Your task to perform on an android device: toggle priority inbox in the gmail app Image 0: 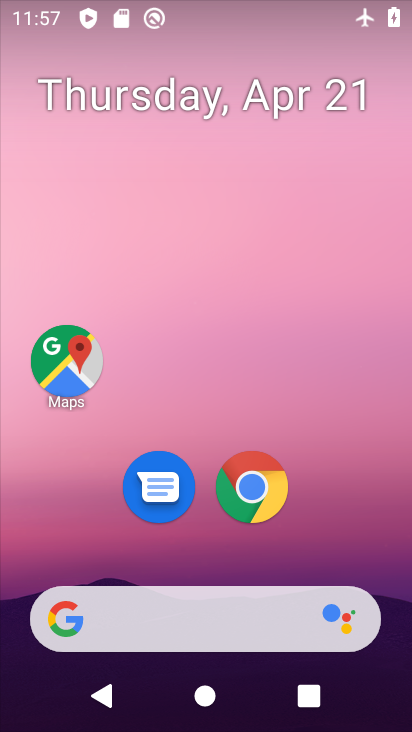
Step 0: drag from (157, 585) to (275, 46)
Your task to perform on an android device: toggle priority inbox in the gmail app Image 1: 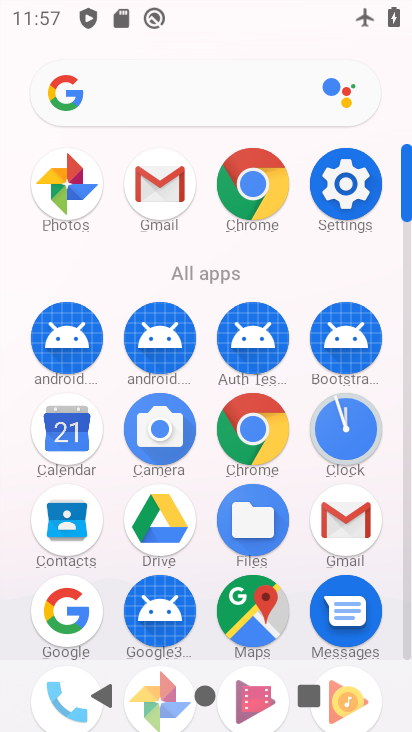
Step 1: click (365, 525)
Your task to perform on an android device: toggle priority inbox in the gmail app Image 2: 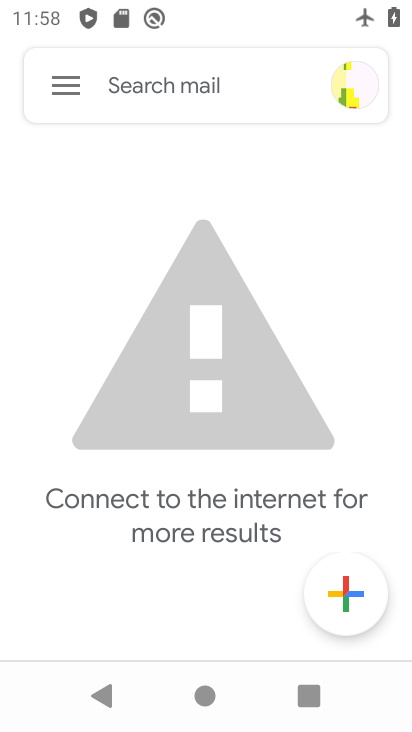
Step 2: click (77, 87)
Your task to perform on an android device: toggle priority inbox in the gmail app Image 3: 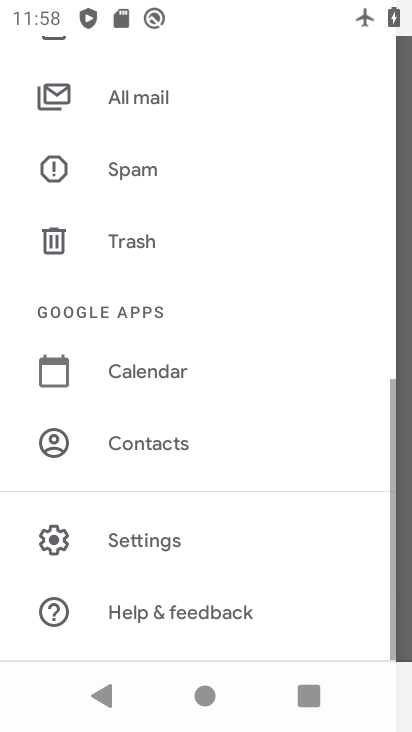
Step 3: click (174, 542)
Your task to perform on an android device: toggle priority inbox in the gmail app Image 4: 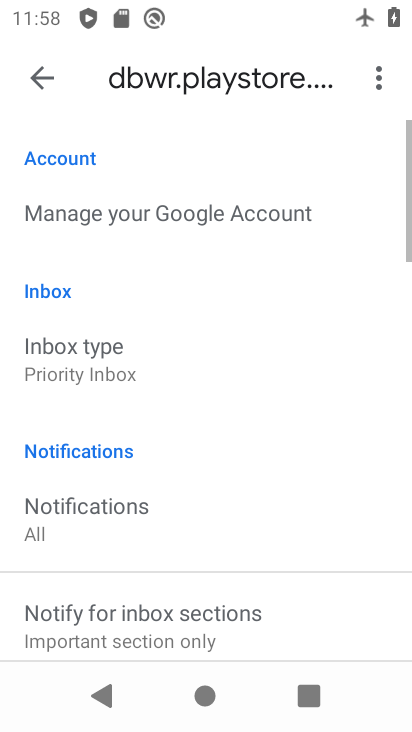
Step 4: drag from (137, 572) to (171, 347)
Your task to perform on an android device: toggle priority inbox in the gmail app Image 5: 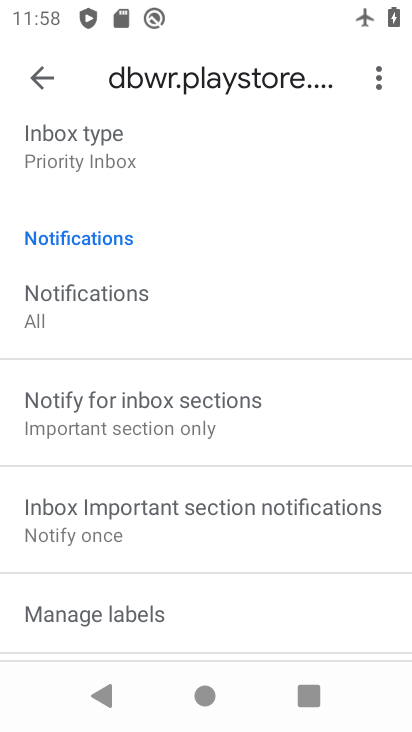
Step 5: click (143, 167)
Your task to perform on an android device: toggle priority inbox in the gmail app Image 6: 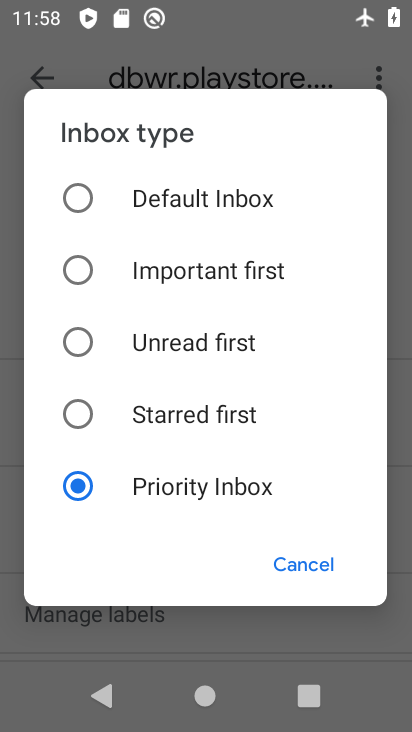
Step 6: click (142, 209)
Your task to perform on an android device: toggle priority inbox in the gmail app Image 7: 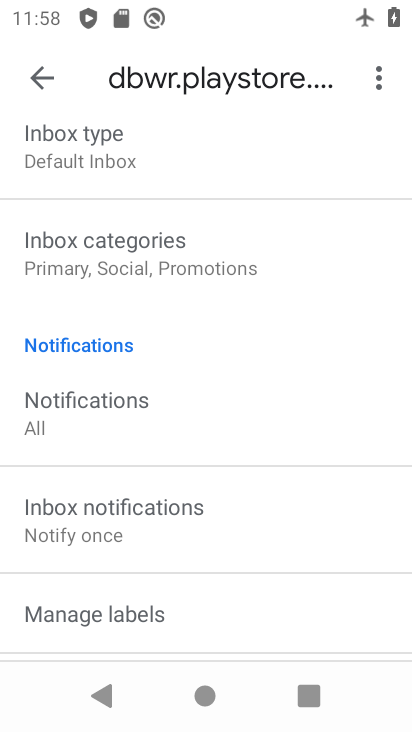
Step 7: task complete